Your task to perform on an android device: Open the calendar and show me this week's events Image 0: 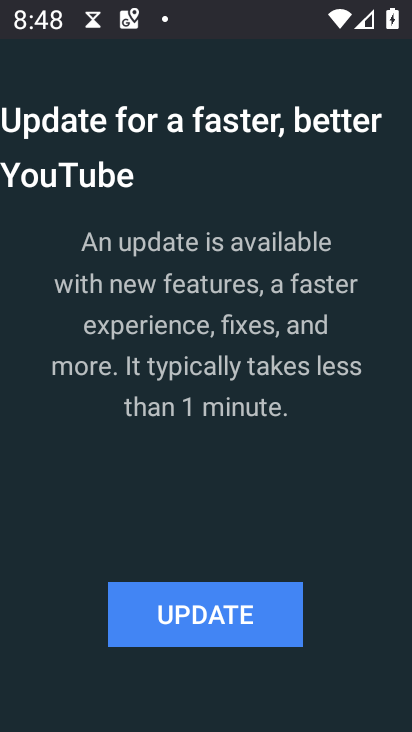
Step 0: press home button
Your task to perform on an android device: Open the calendar and show me this week's events Image 1: 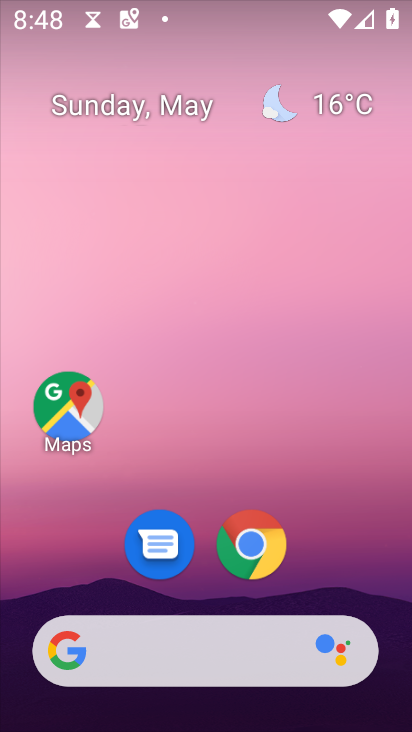
Step 1: drag from (339, 586) to (229, 0)
Your task to perform on an android device: Open the calendar and show me this week's events Image 2: 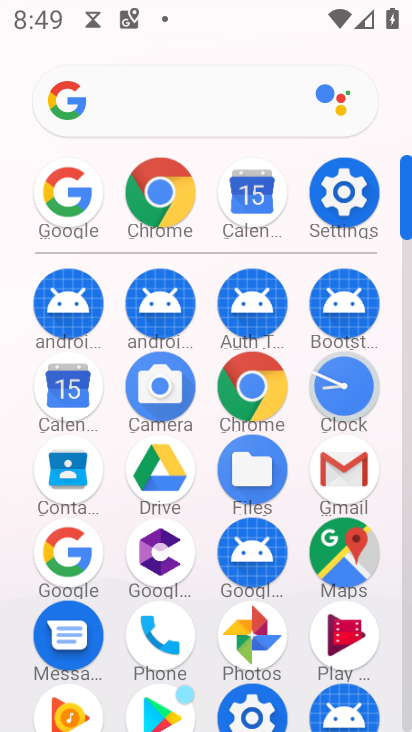
Step 2: click (74, 410)
Your task to perform on an android device: Open the calendar and show me this week's events Image 3: 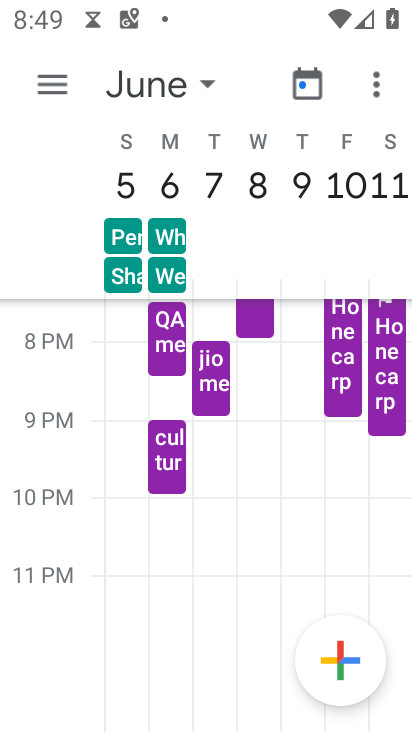
Step 3: drag from (230, 500) to (305, 81)
Your task to perform on an android device: Open the calendar and show me this week's events Image 4: 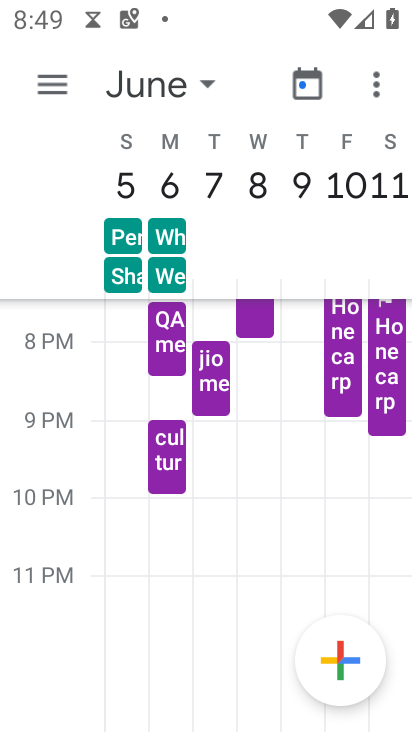
Step 4: click (150, 101)
Your task to perform on an android device: Open the calendar and show me this week's events Image 5: 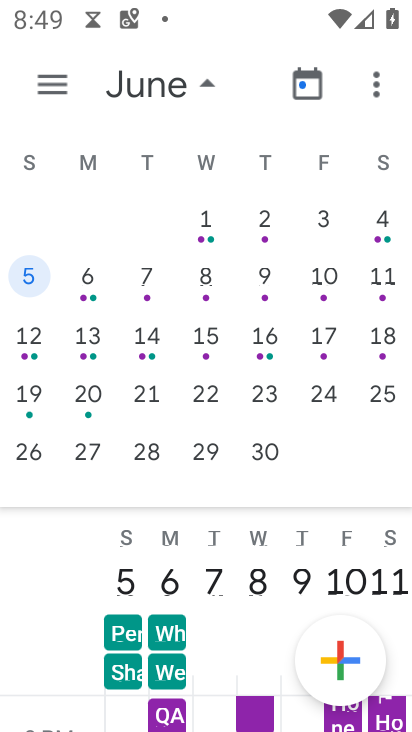
Step 5: drag from (131, 360) to (405, 429)
Your task to perform on an android device: Open the calendar and show me this week's events Image 6: 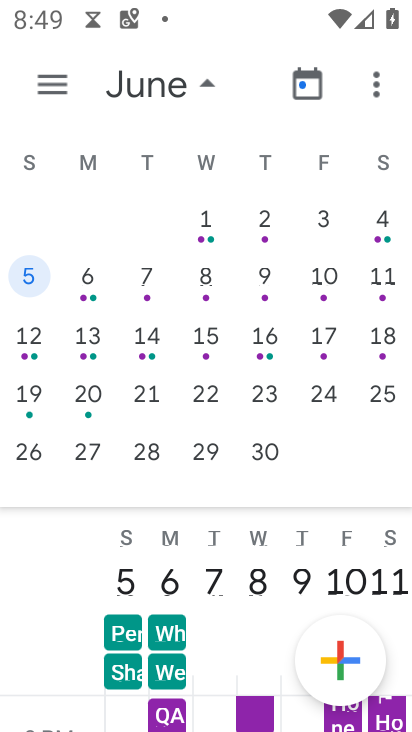
Step 6: drag from (74, 355) to (407, 356)
Your task to perform on an android device: Open the calendar and show me this week's events Image 7: 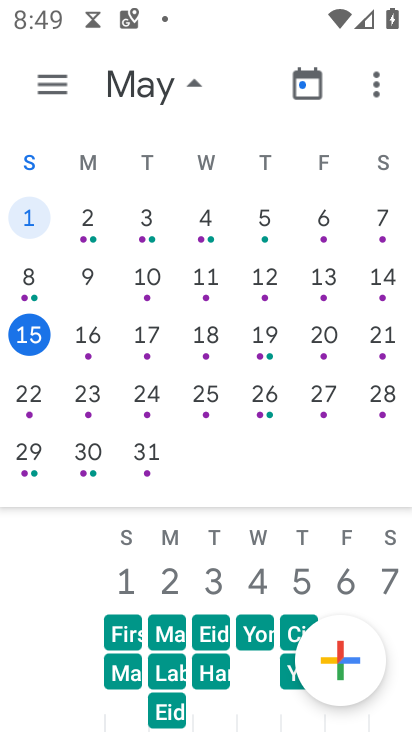
Step 7: click (31, 344)
Your task to perform on an android device: Open the calendar and show me this week's events Image 8: 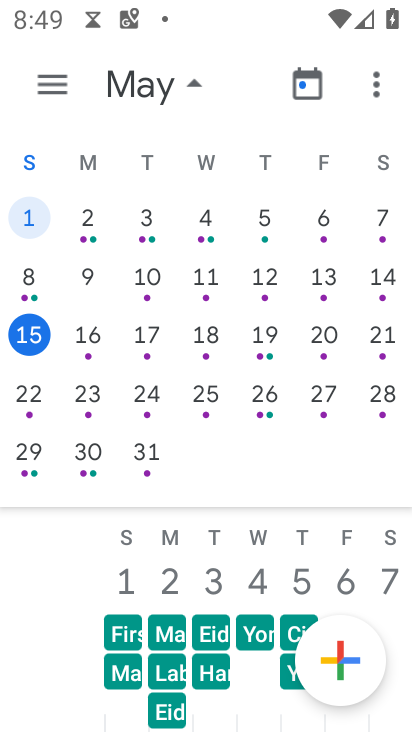
Step 8: click (31, 336)
Your task to perform on an android device: Open the calendar and show me this week's events Image 9: 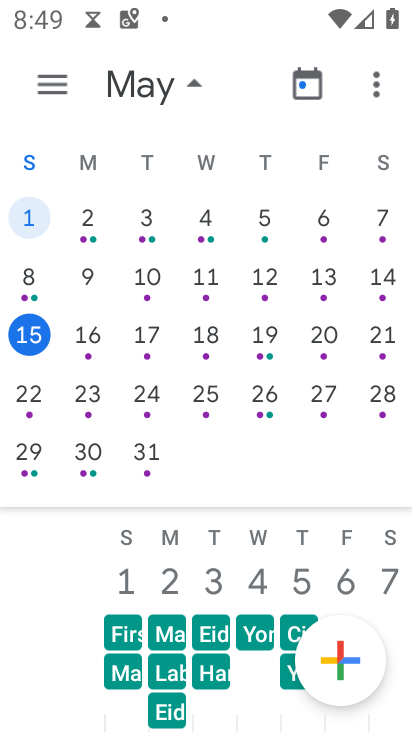
Step 9: click (31, 336)
Your task to perform on an android device: Open the calendar and show me this week's events Image 10: 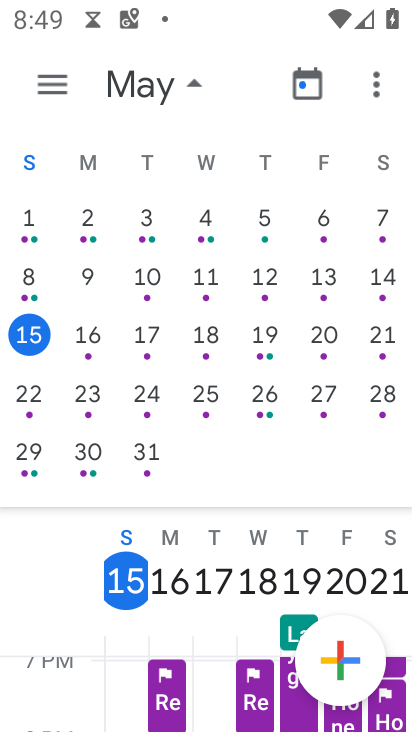
Step 10: task complete